Your task to perform on an android device: open wifi settings Image 0: 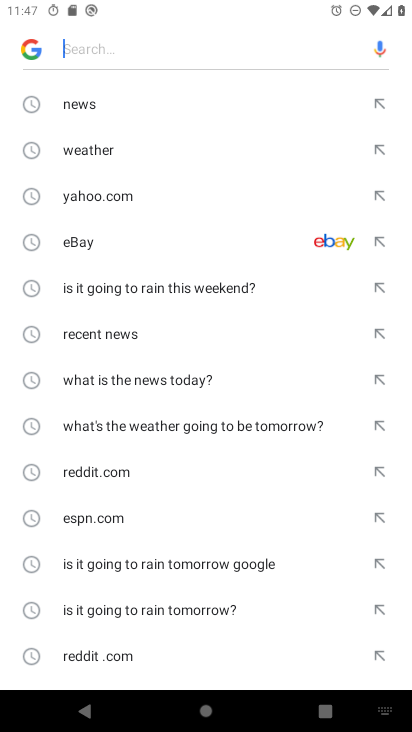
Step 0: press home button
Your task to perform on an android device: open wifi settings Image 1: 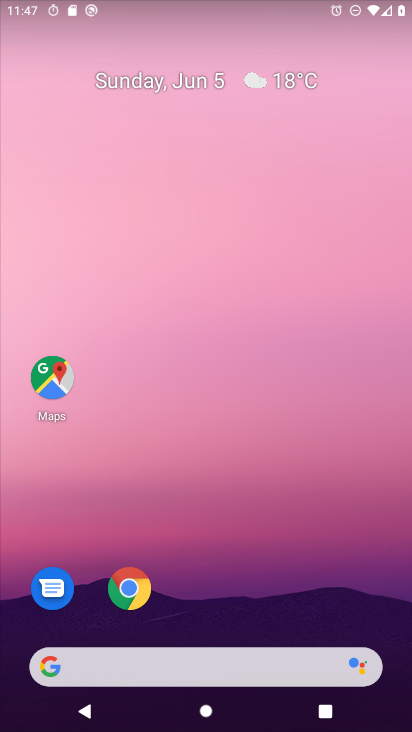
Step 1: drag from (345, 590) to (357, 226)
Your task to perform on an android device: open wifi settings Image 2: 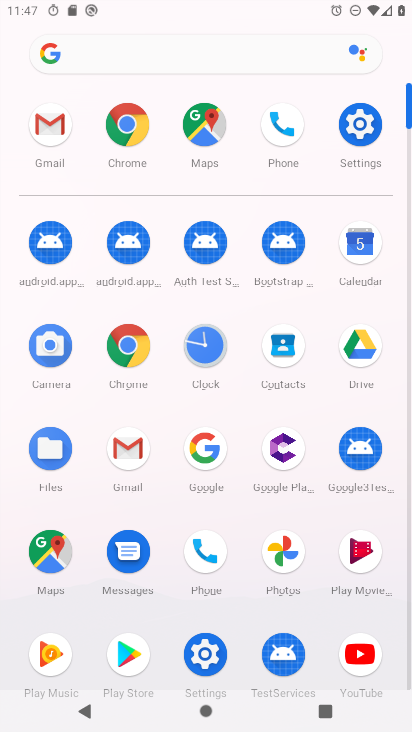
Step 2: click (362, 146)
Your task to perform on an android device: open wifi settings Image 3: 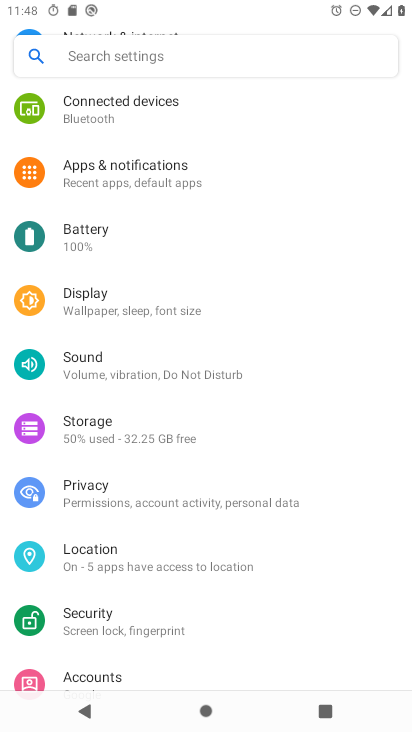
Step 3: drag from (340, 540) to (345, 451)
Your task to perform on an android device: open wifi settings Image 4: 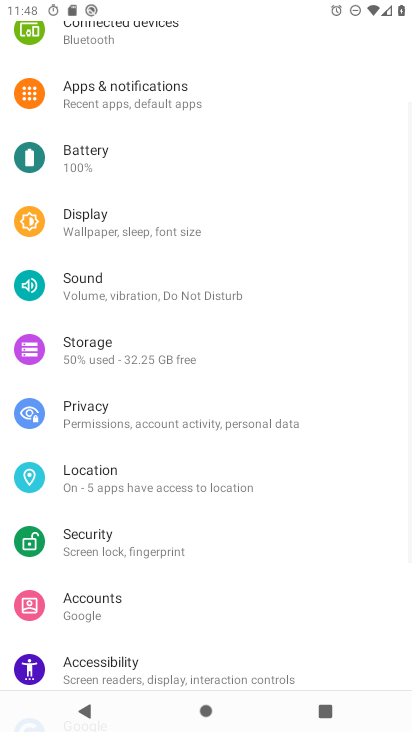
Step 4: drag from (351, 556) to (355, 404)
Your task to perform on an android device: open wifi settings Image 5: 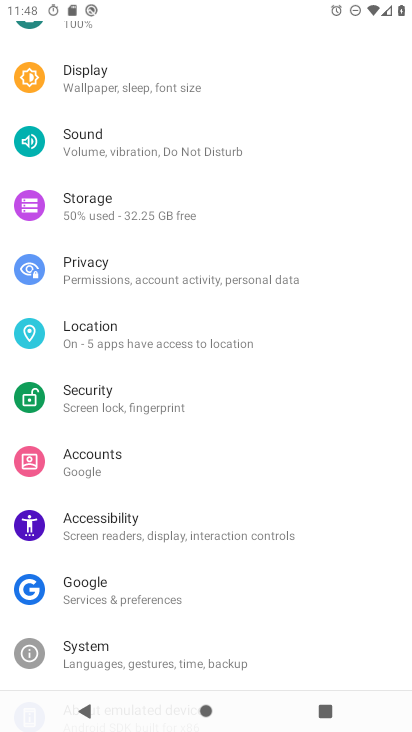
Step 5: drag from (357, 574) to (362, 458)
Your task to perform on an android device: open wifi settings Image 6: 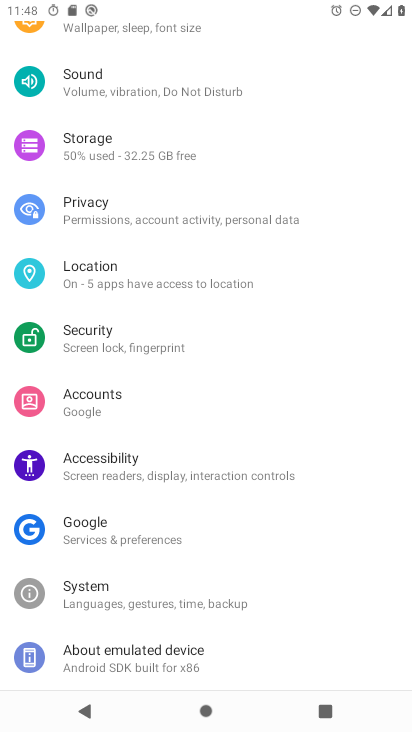
Step 6: drag from (360, 342) to (357, 444)
Your task to perform on an android device: open wifi settings Image 7: 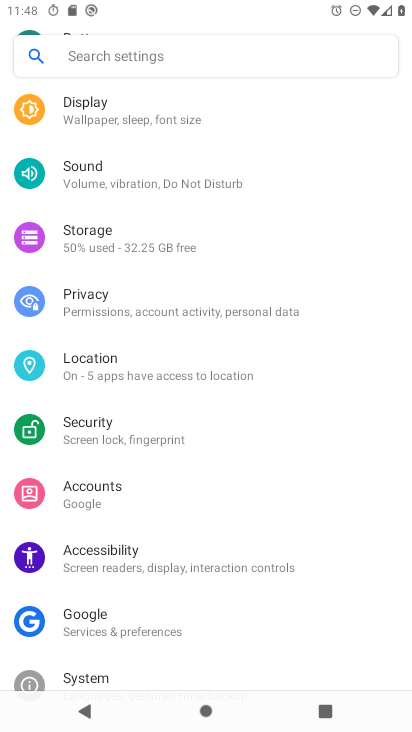
Step 7: drag from (357, 284) to (356, 402)
Your task to perform on an android device: open wifi settings Image 8: 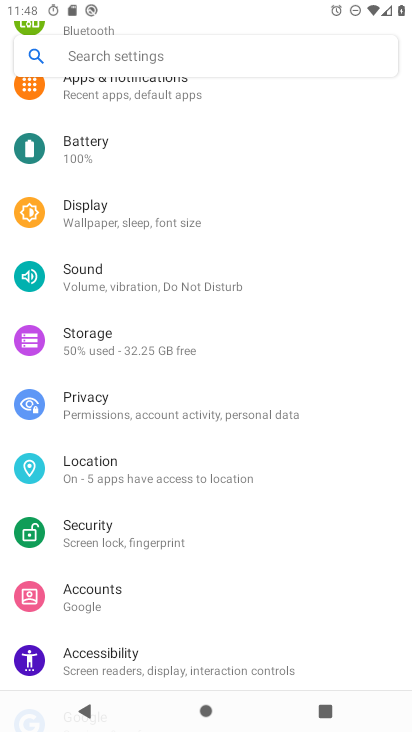
Step 8: drag from (352, 250) to (351, 388)
Your task to perform on an android device: open wifi settings Image 9: 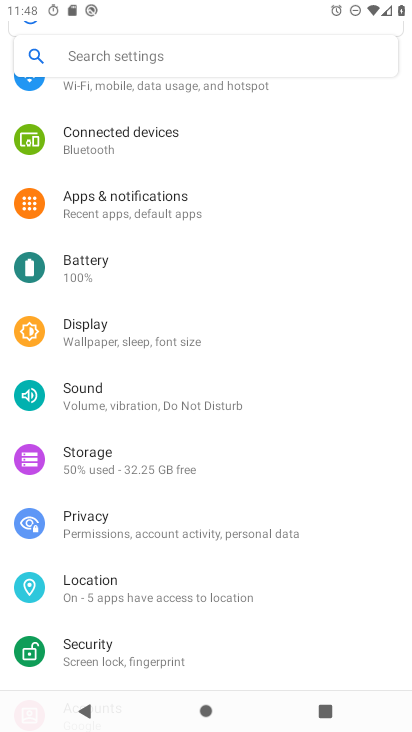
Step 9: drag from (370, 241) to (372, 416)
Your task to perform on an android device: open wifi settings Image 10: 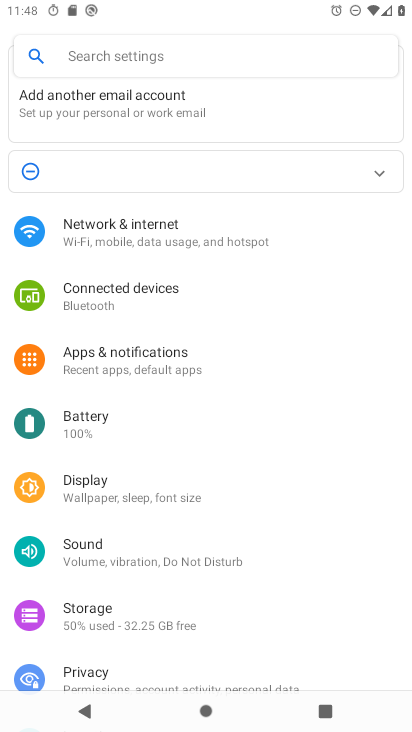
Step 10: click (201, 239)
Your task to perform on an android device: open wifi settings Image 11: 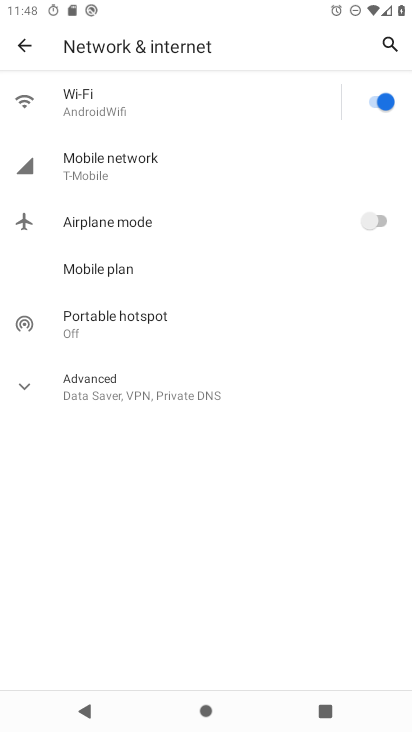
Step 11: click (148, 113)
Your task to perform on an android device: open wifi settings Image 12: 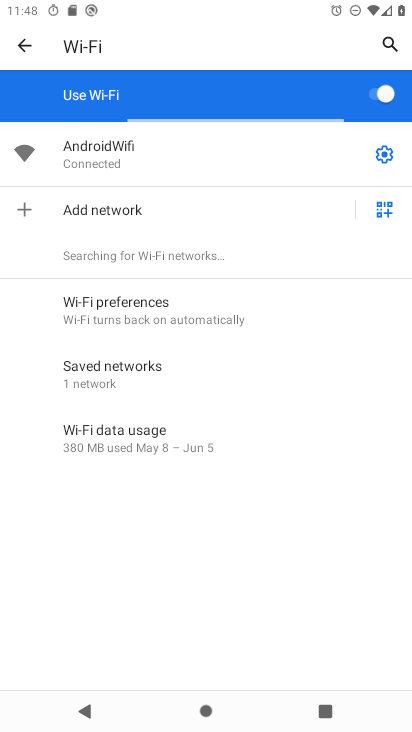
Step 12: task complete